Your task to perform on an android device: Search for "dell alienware" on amazon, select the first entry, add it to the cart, then select checkout. Image 0: 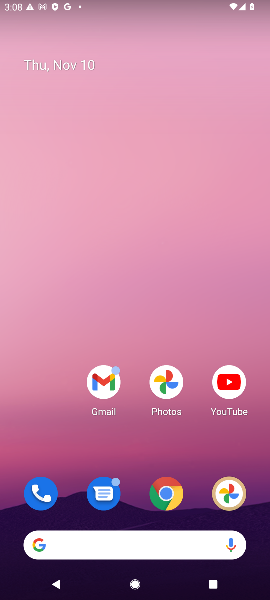
Step 0: drag from (132, 466) to (126, 108)
Your task to perform on an android device: Search for "dell alienware" on amazon, select the first entry, add it to the cart, then select checkout. Image 1: 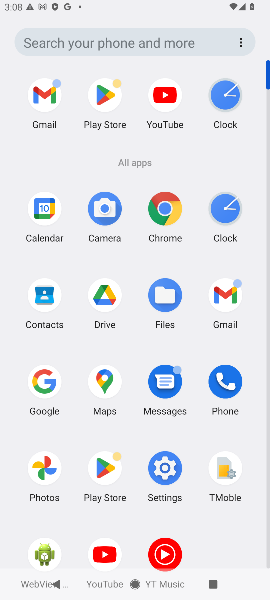
Step 1: click (31, 378)
Your task to perform on an android device: Search for "dell alienware" on amazon, select the first entry, add it to the cart, then select checkout. Image 2: 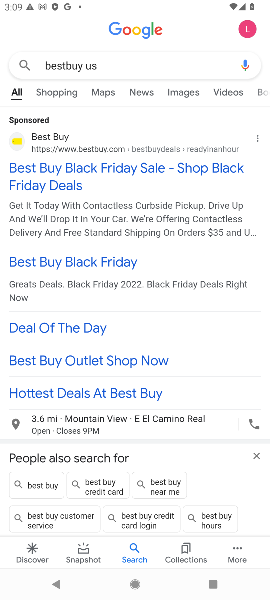
Step 2: click (106, 58)
Your task to perform on an android device: Search for "dell alienware" on amazon, select the first entry, add it to the cart, then select checkout. Image 3: 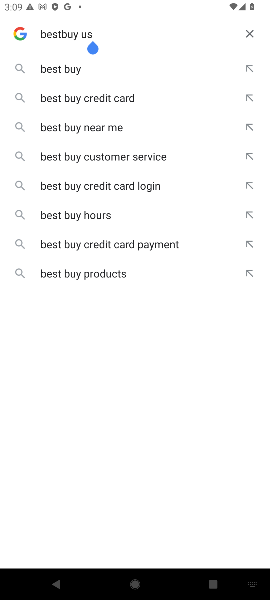
Step 3: click (251, 27)
Your task to perform on an android device: Search for "dell alienware" on amazon, select the first entry, add it to the cart, then select checkout. Image 4: 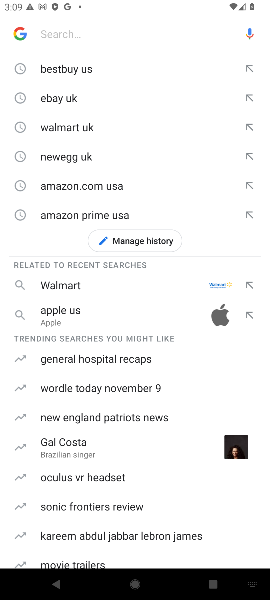
Step 4: click (73, 191)
Your task to perform on an android device: Search for "dell alienware" on amazon, select the first entry, add it to the cart, then select checkout. Image 5: 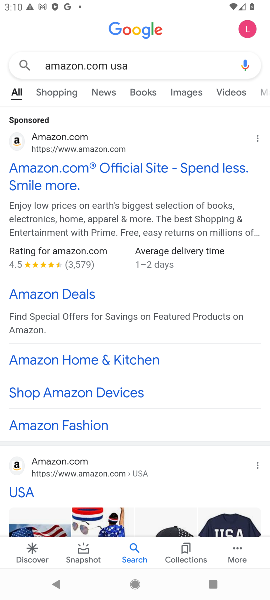
Step 5: click (17, 140)
Your task to perform on an android device: Search for "dell alienware" on amazon, select the first entry, add it to the cart, then select checkout. Image 6: 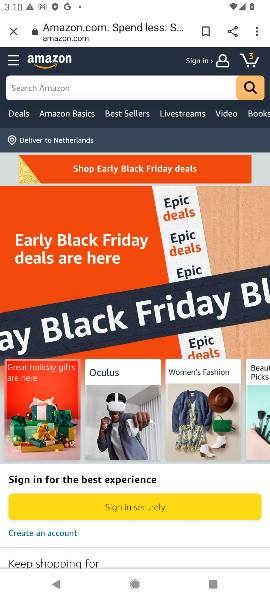
Step 6: click (140, 84)
Your task to perform on an android device: Search for "dell alienware" on amazon, select the first entry, add it to the cart, then select checkout. Image 7: 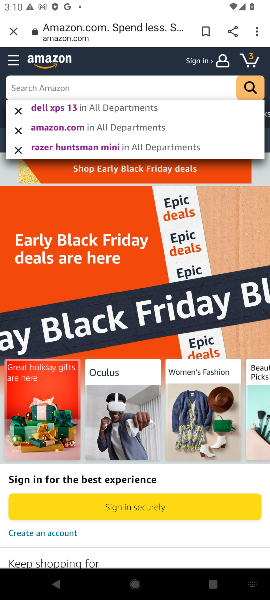
Step 7: type "dell alienware "
Your task to perform on an android device: Search for "dell alienware" on amazon, select the first entry, add it to the cart, then select checkout. Image 8: 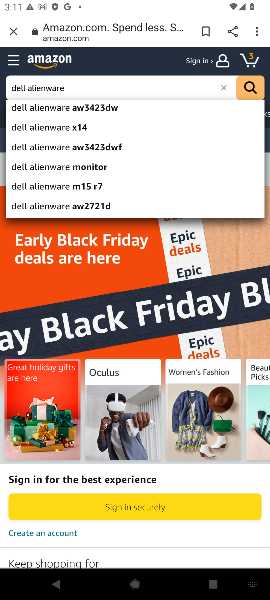
Step 8: click (90, 110)
Your task to perform on an android device: Search for "dell alienware" on amazon, select the first entry, add it to the cart, then select checkout. Image 9: 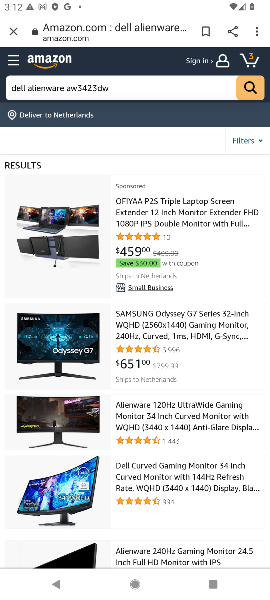
Step 9: click (256, 87)
Your task to perform on an android device: Search for "dell alienware" on amazon, select the first entry, add it to the cart, then select checkout. Image 10: 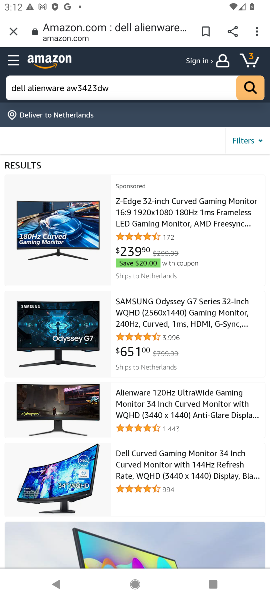
Step 10: click (158, 400)
Your task to perform on an android device: Search for "dell alienware" on amazon, select the first entry, add it to the cart, then select checkout. Image 11: 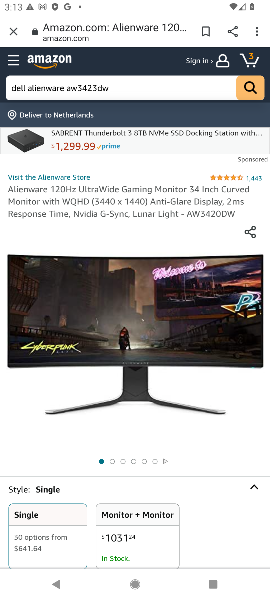
Step 11: task complete